Your task to perform on an android device: change text size in settings app Image 0: 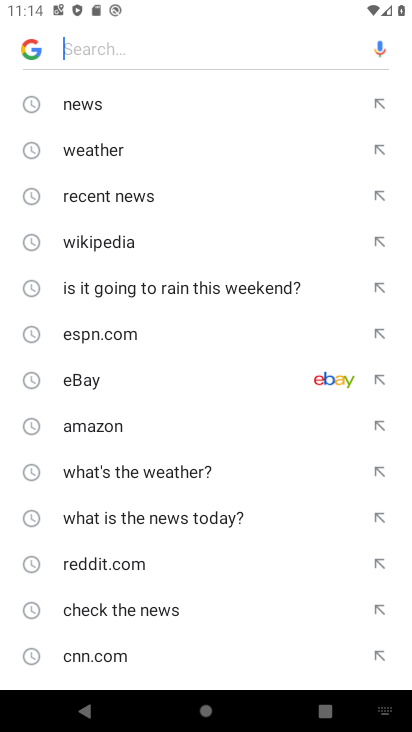
Step 0: press home button
Your task to perform on an android device: change text size in settings app Image 1: 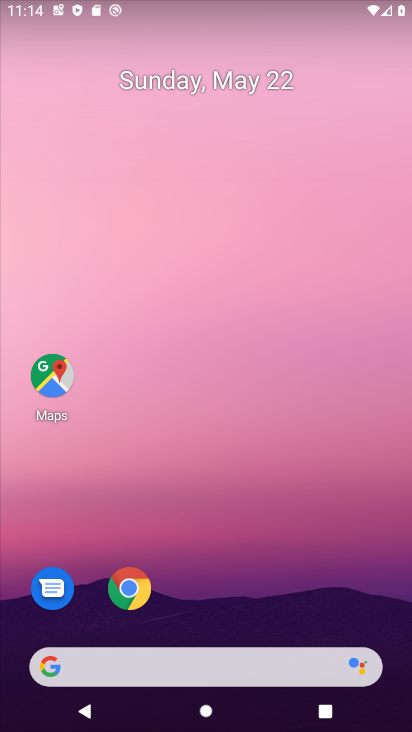
Step 1: drag from (189, 638) to (174, 186)
Your task to perform on an android device: change text size in settings app Image 2: 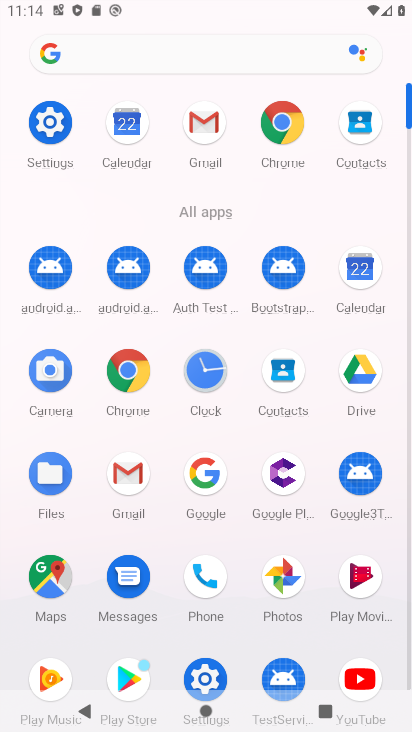
Step 2: click (50, 121)
Your task to perform on an android device: change text size in settings app Image 3: 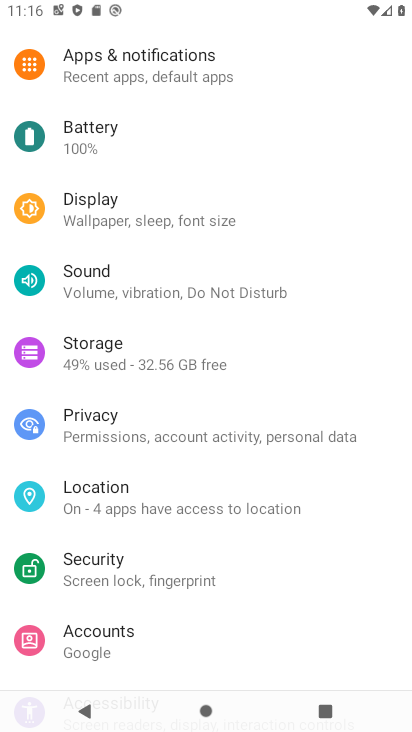
Step 3: click (60, 150)
Your task to perform on an android device: change text size in settings app Image 4: 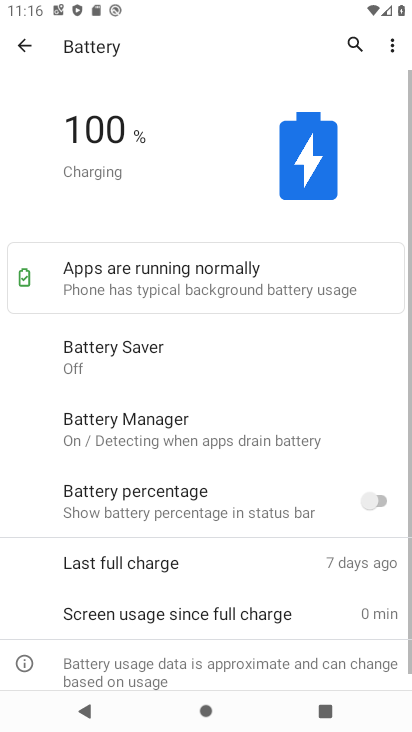
Step 4: drag from (142, 648) to (247, 325)
Your task to perform on an android device: change text size in settings app Image 5: 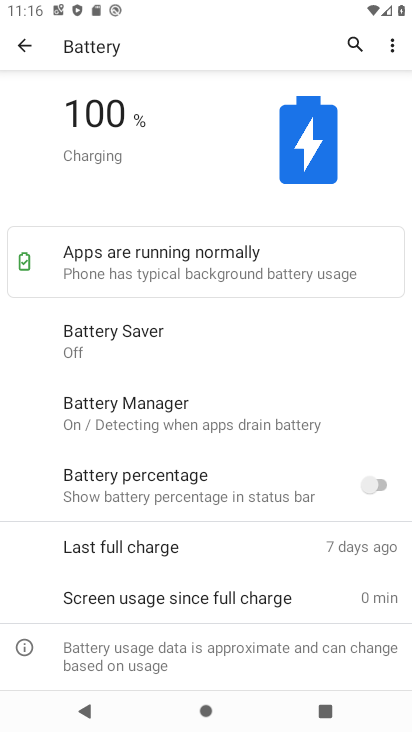
Step 5: click (28, 42)
Your task to perform on an android device: change text size in settings app Image 6: 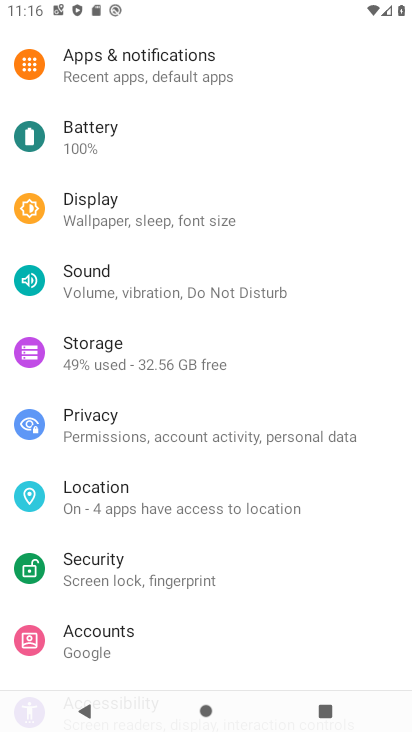
Step 6: drag from (241, 633) to (138, 249)
Your task to perform on an android device: change text size in settings app Image 7: 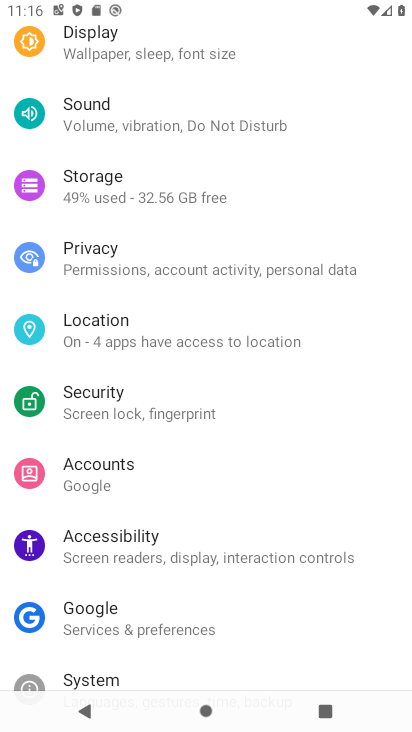
Step 7: click (119, 554)
Your task to perform on an android device: change text size in settings app Image 8: 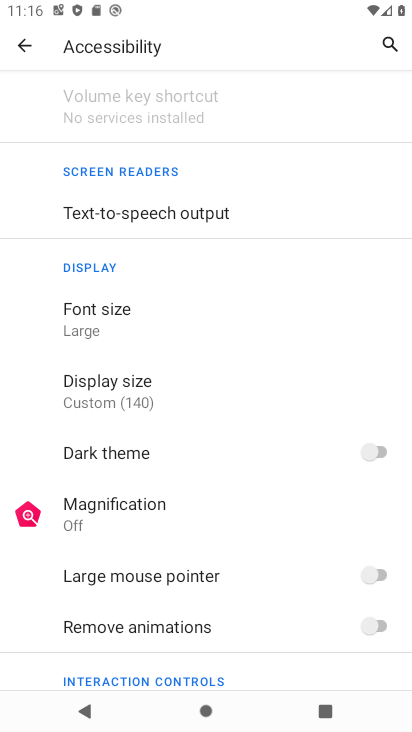
Step 8: drag from (203, 647) to (203, 87)
Your task to perform on an android device: change text size in settings app Image 9: 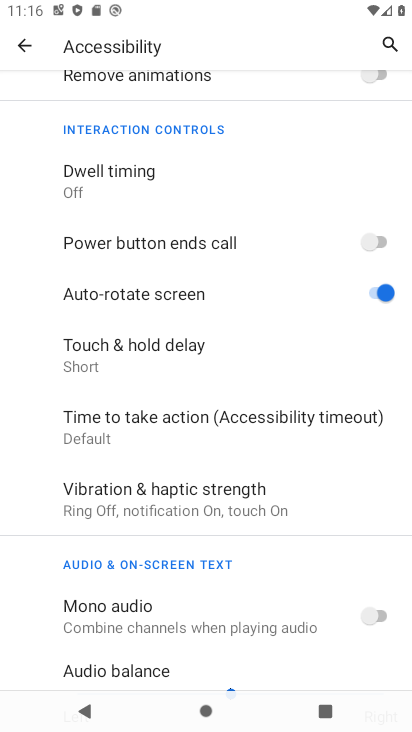
Step 9: drag from (289, 93) to (213, 515)
Your task to perform on an android device: change text size in settings app Image 10: 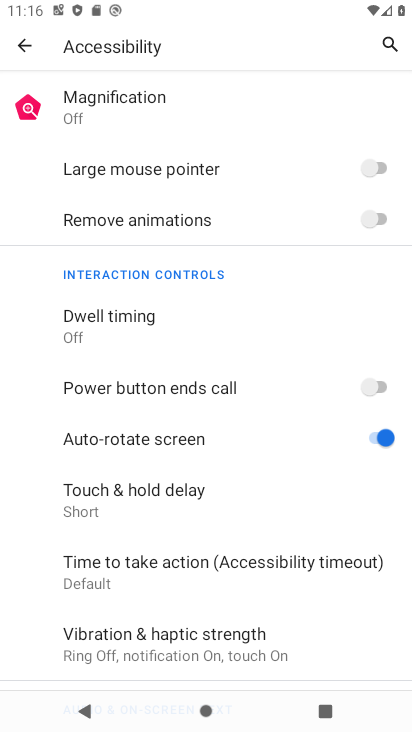
Step 10: drag from (259, 140) to (288, 432)
Your task to perform on an android device: change text size in settings app Image 11: 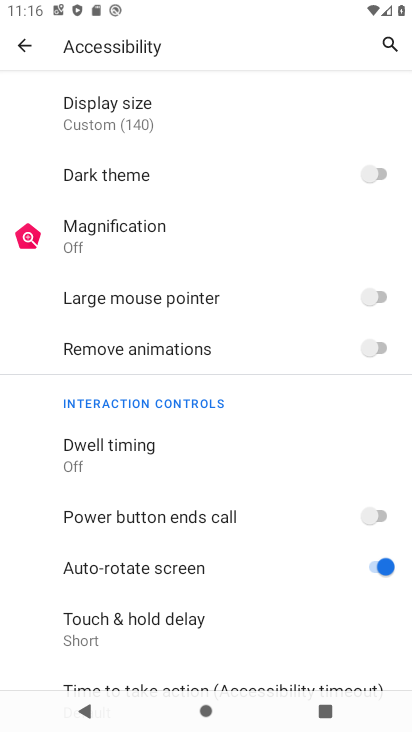
Step 11: drag from (243, 139) to (301, 489)
Your task to perform on an android device: change text size in settings app Image 12: 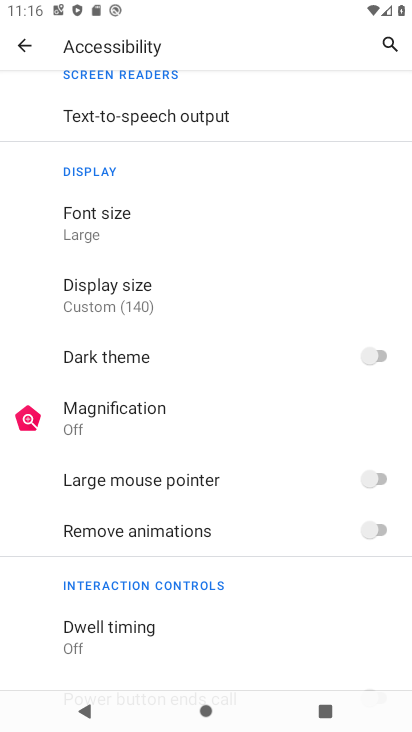
Step 12: click (114, 224)
Your task to perform on an android device: change text size in settings app Image 13: 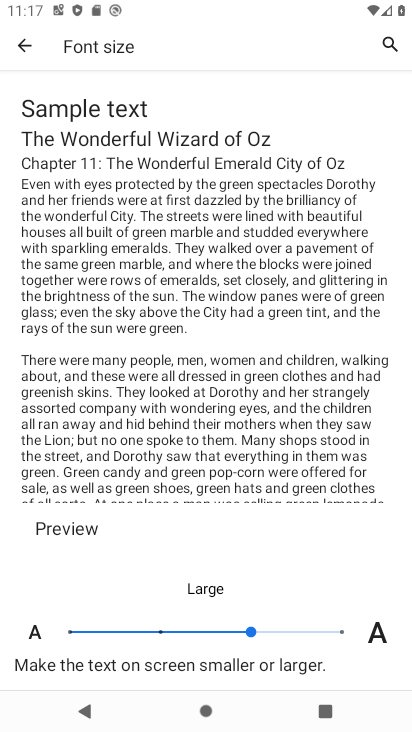
Step 13: click (179, 632)
Your task to perform on an android device: change text size in settings app Image 14: 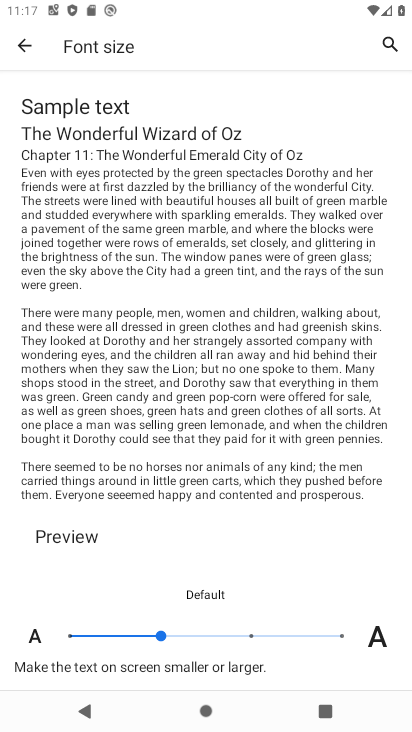
Step 14: task complete